Your task to perform on an android device: Check the weather Image 0: 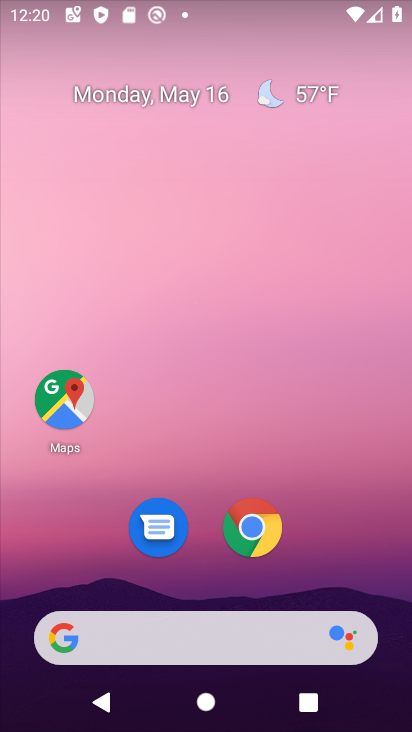
Step 0: drag from (198, 598) to (164, 564)
Your task to perform on an android device: Check the weather Image 1: 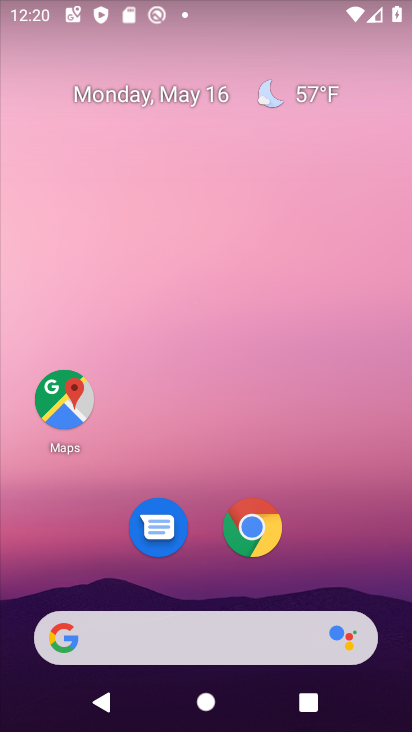
Step 1: click (302, 91)
Your task to perform on an android device: Check the weather Image 2: 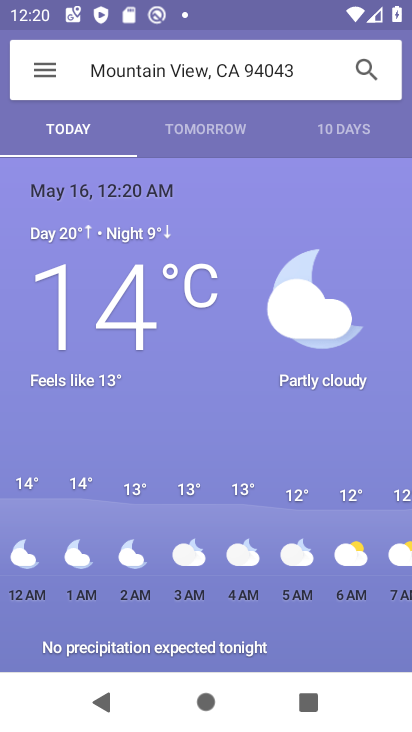
Step 2: task complete